Your task to perform on an android device: all mails in gmail Image 0: 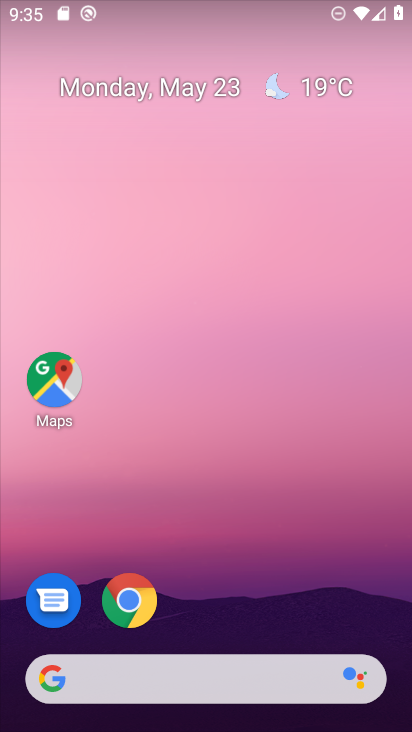
Step 0: press home button
Your task to perform on an android device: all mails in gmail Image 1: 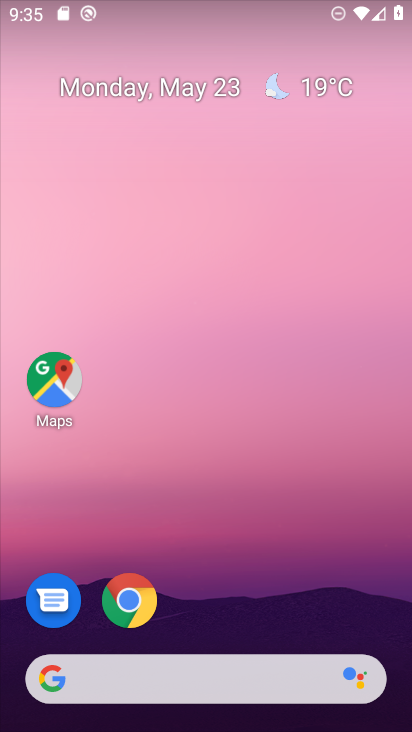
Step 1: drag from (31, 539) to (241, 144)
Your task to perform on an android device: all mails in gmail Image 2: 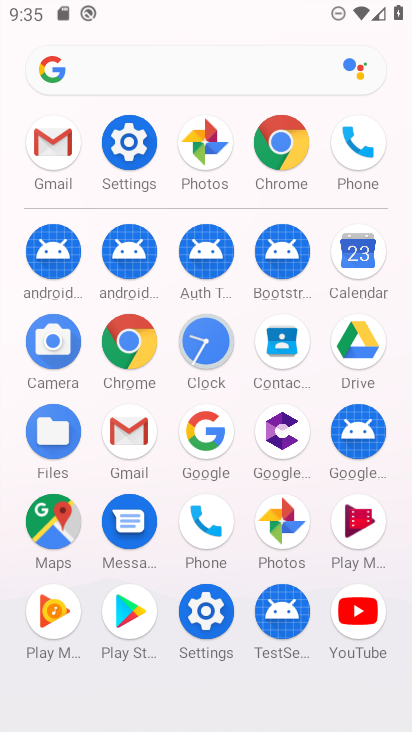
Step 2: click (55, 140)
Your task to perform on an android device: all mails in gmail Image 3: 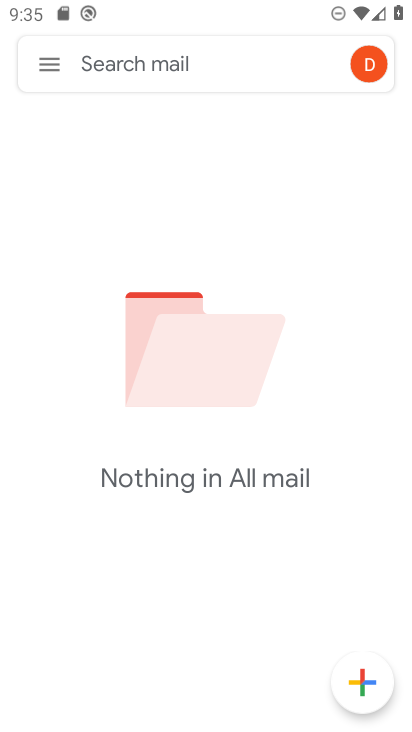
Step 3: click (47, 78)
Your task to perform on an android device: all mails in gmail Image 4: 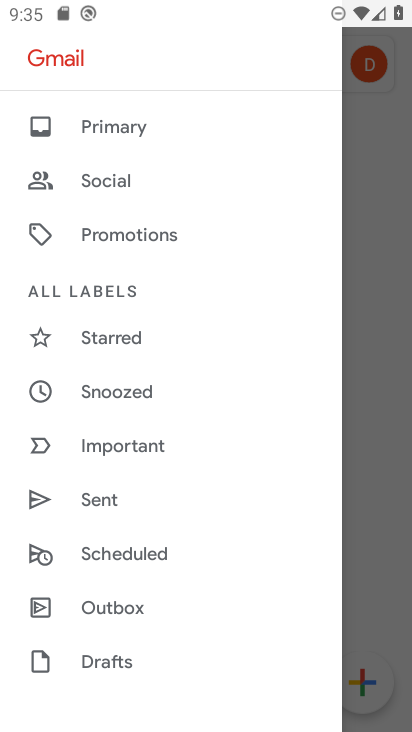
Step 4: drag from (300, 727) to (216, 87)
Your task to perform on an android device: all mails in gmail Image 5: 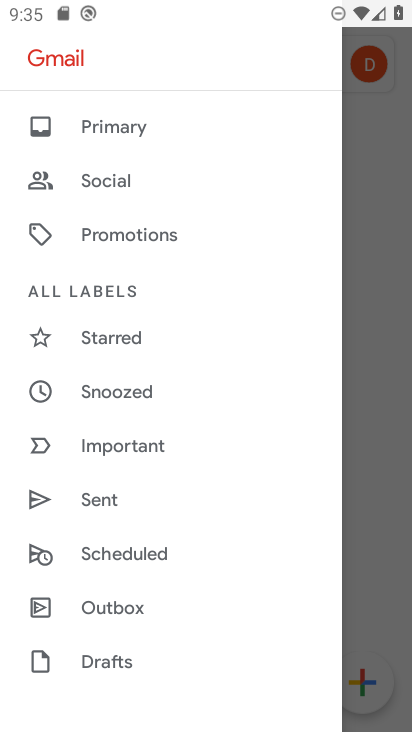
Step 5: drag from (55, 646) to (258, 105)
Your task to perform on an android device: all mails in gmail Image 6: 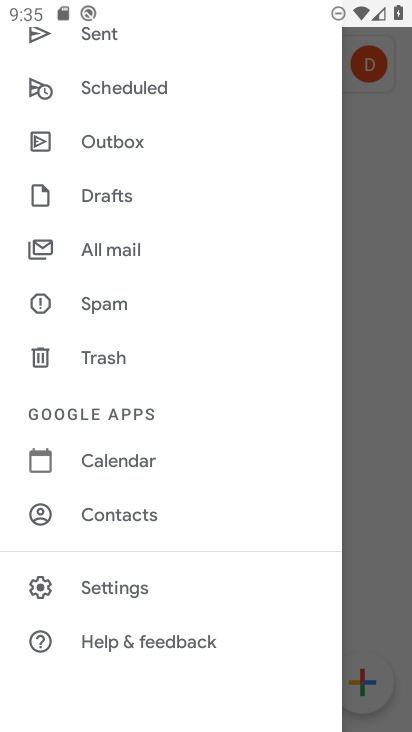
Step 6: click (116, 252)
Your task to perform on an android device: all mails in gmail Image 7: 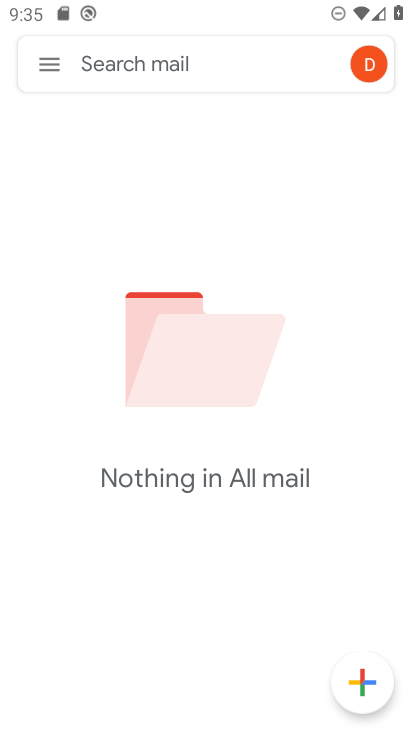
Step 7: task complete